Your task to perform on an android device: install app "Etsy: Buy & Sell Unique Items" Image 0: 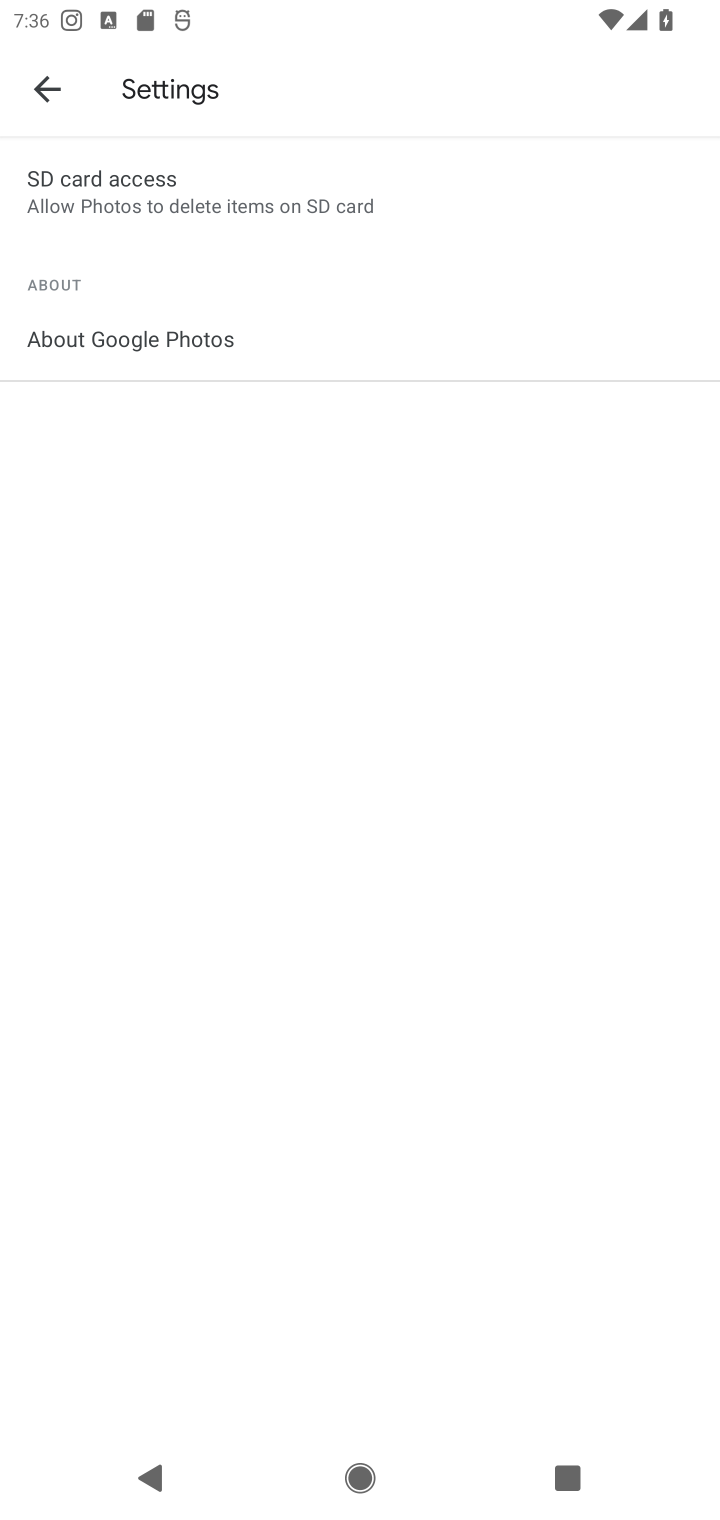
Step 0: press home button
Your task to perform on an android device: install app "Etsy: Buy & Sell Unique Items" Image 1: 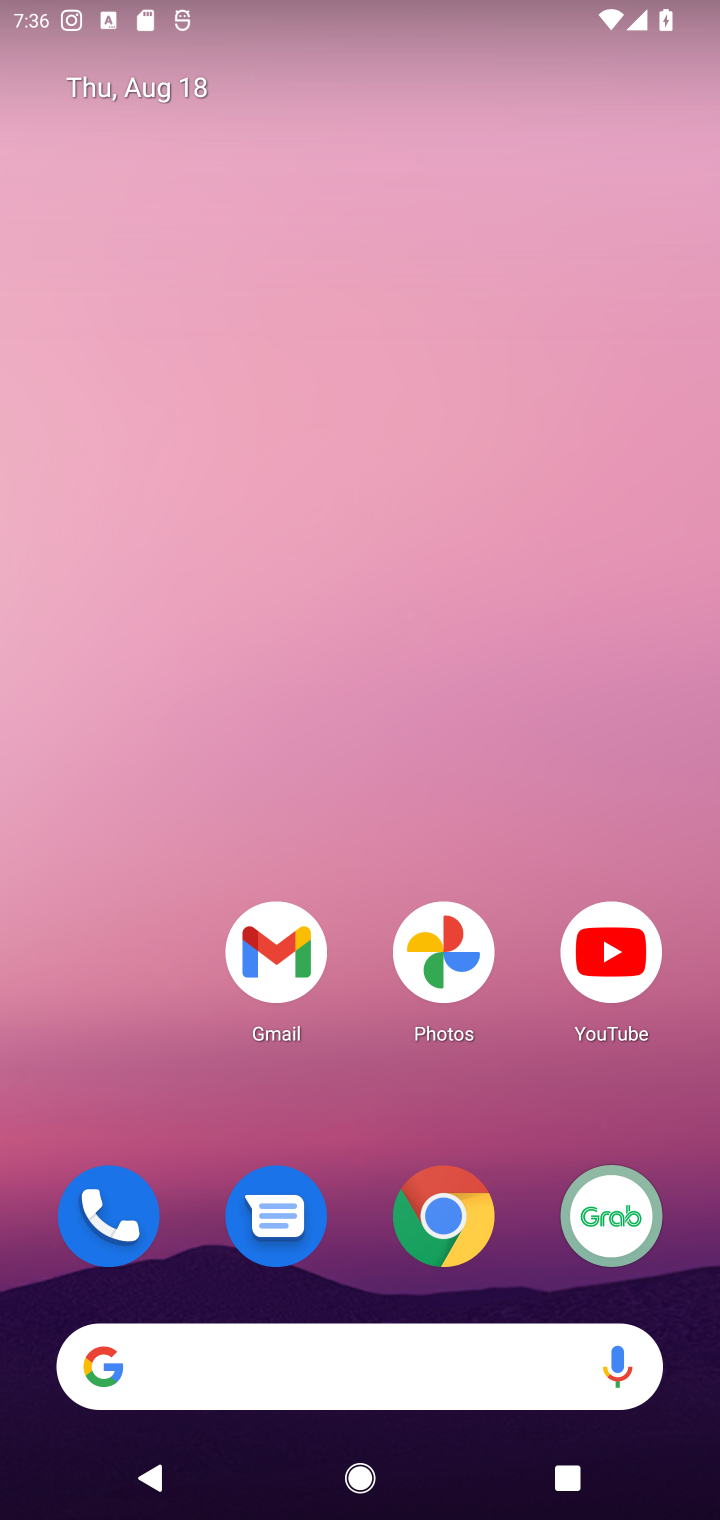
Step 1: drag from (418, 982) to (435, 311)
Your task to perform on an android device: install app "Etsy: Buy & Sell Unique Items" Image 2: 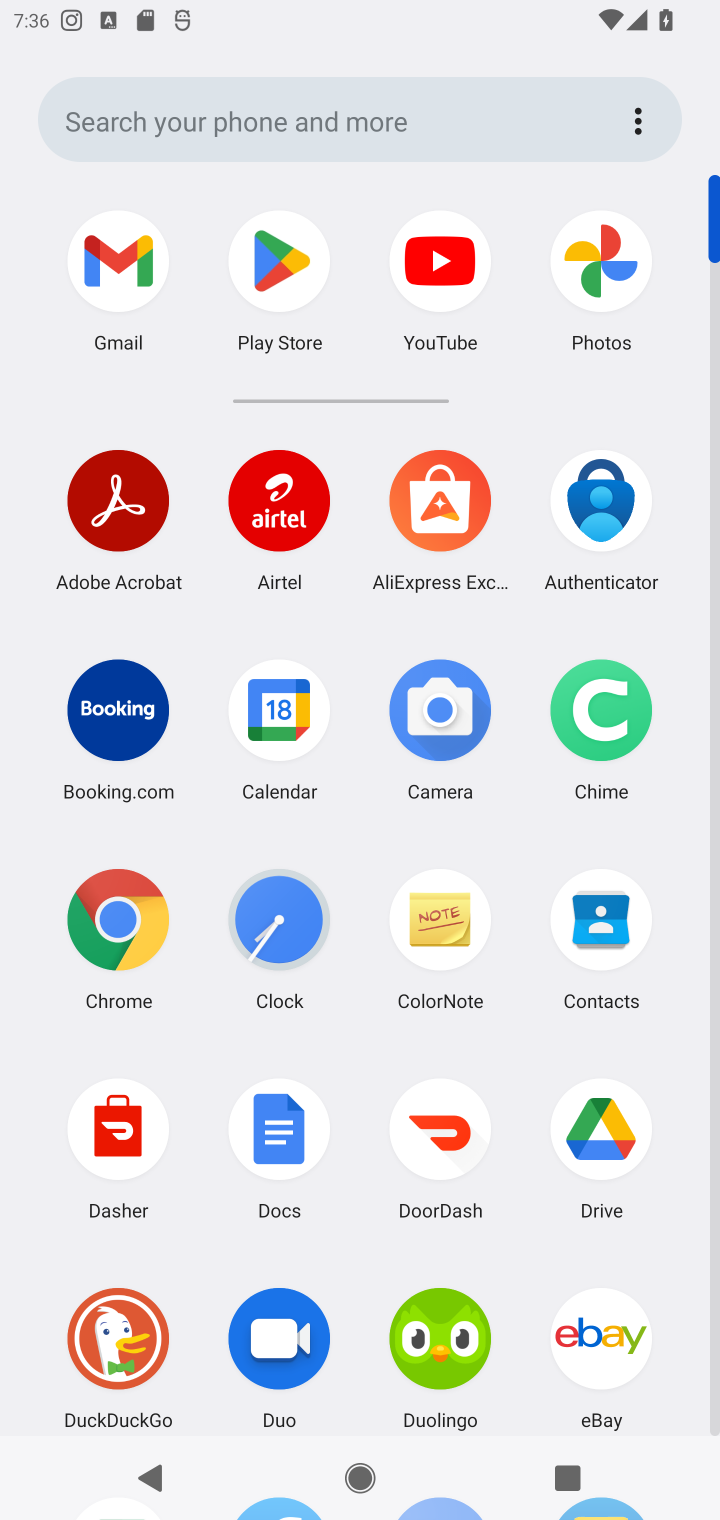
Step 2: click (288, 265)
Your task to perform on an android device: install app "Etsy: Buy & Sell Unique Items" Image 3: 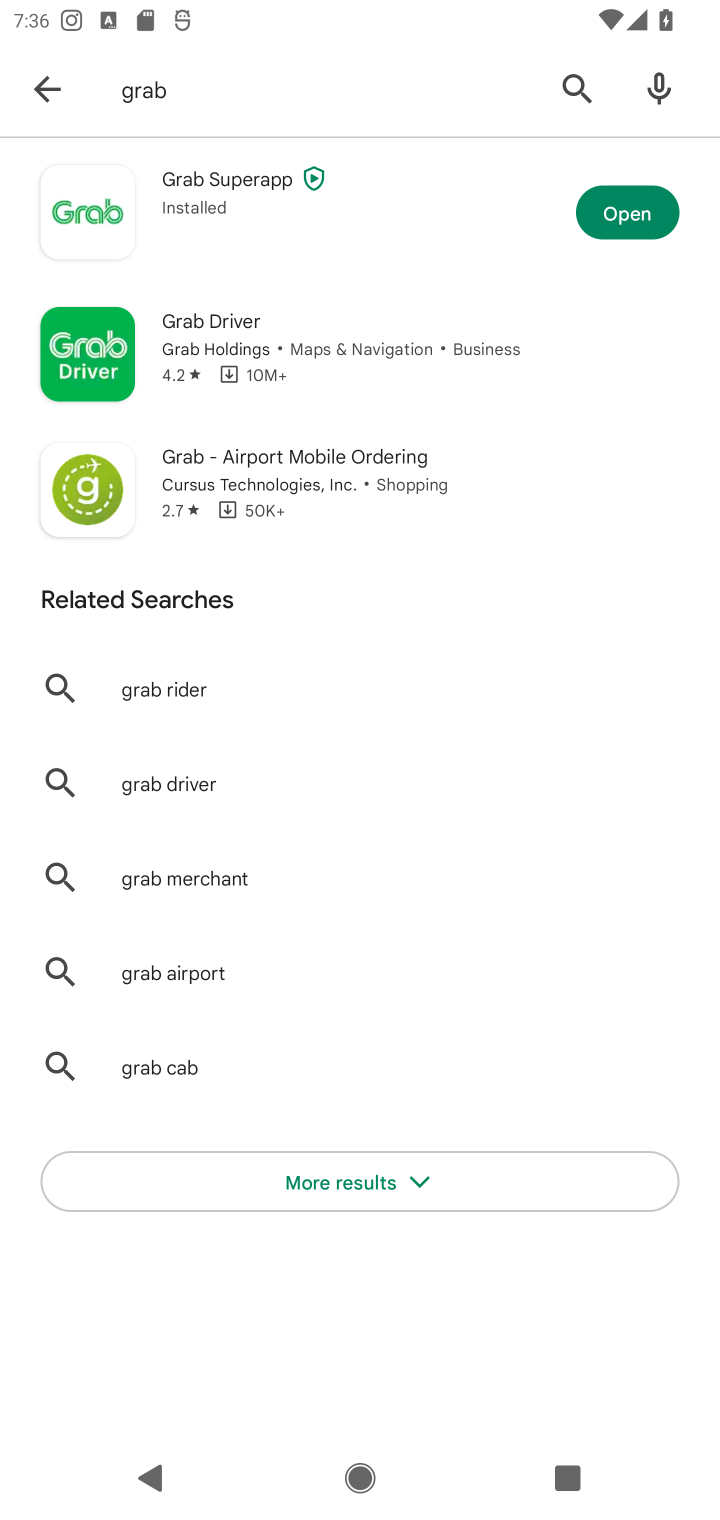
Step 3: click (599, 85)
Your task to perform on an android device: install app "Etsy: Buy & Sell Unique Items" Image 4: 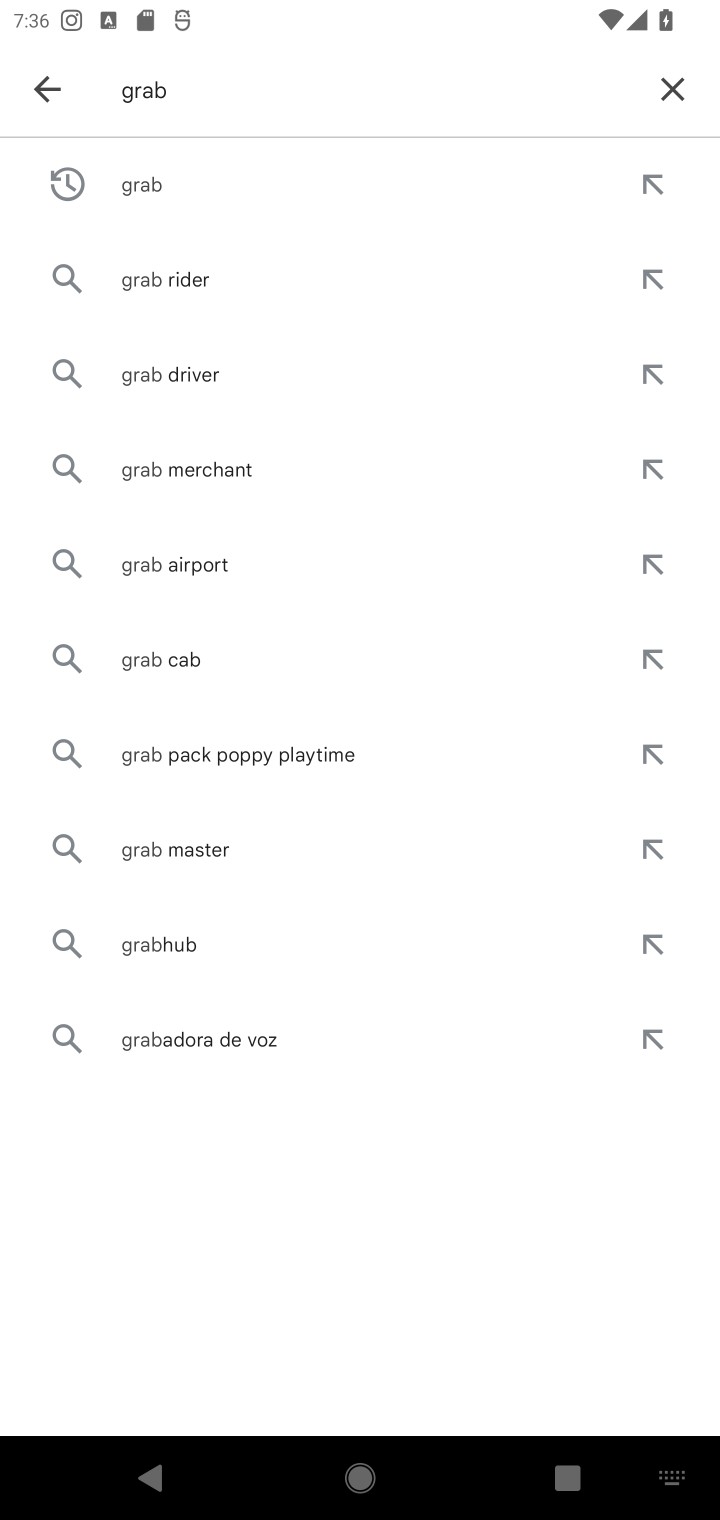
Step 4: click (655, 82)
Your task to perform on an android device: install app "Etsy: Buy & Sell Unique Items" Image 5: 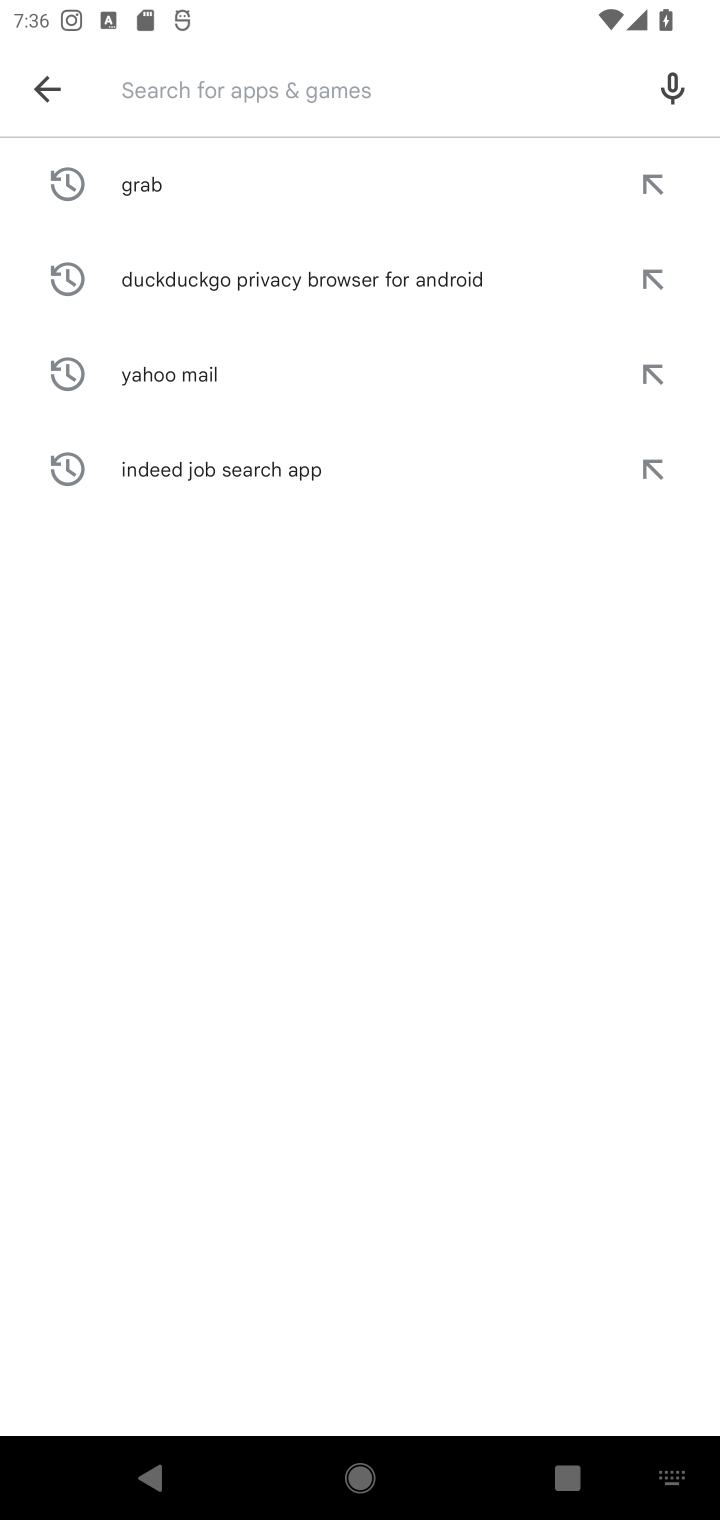
Step 5: type "Etsy: Buy & Sell Unique Items"
Your task to perform on an android device: install app "Etsy: Buy & Sell Unique Items" Image 6: 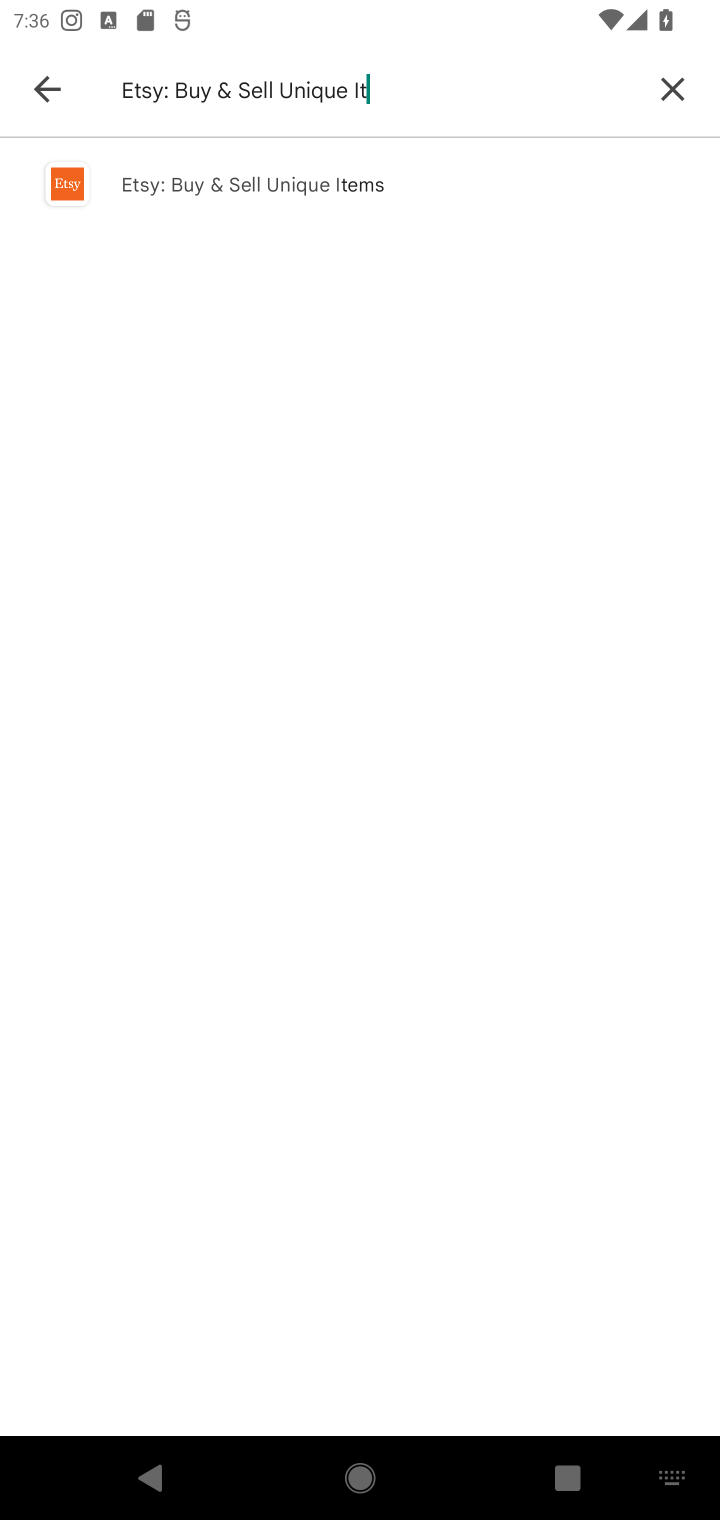
Step 6: type ""
Your task to perform on an android device: install app "Etsy: Buy & Sell Unique Items" Image 7: 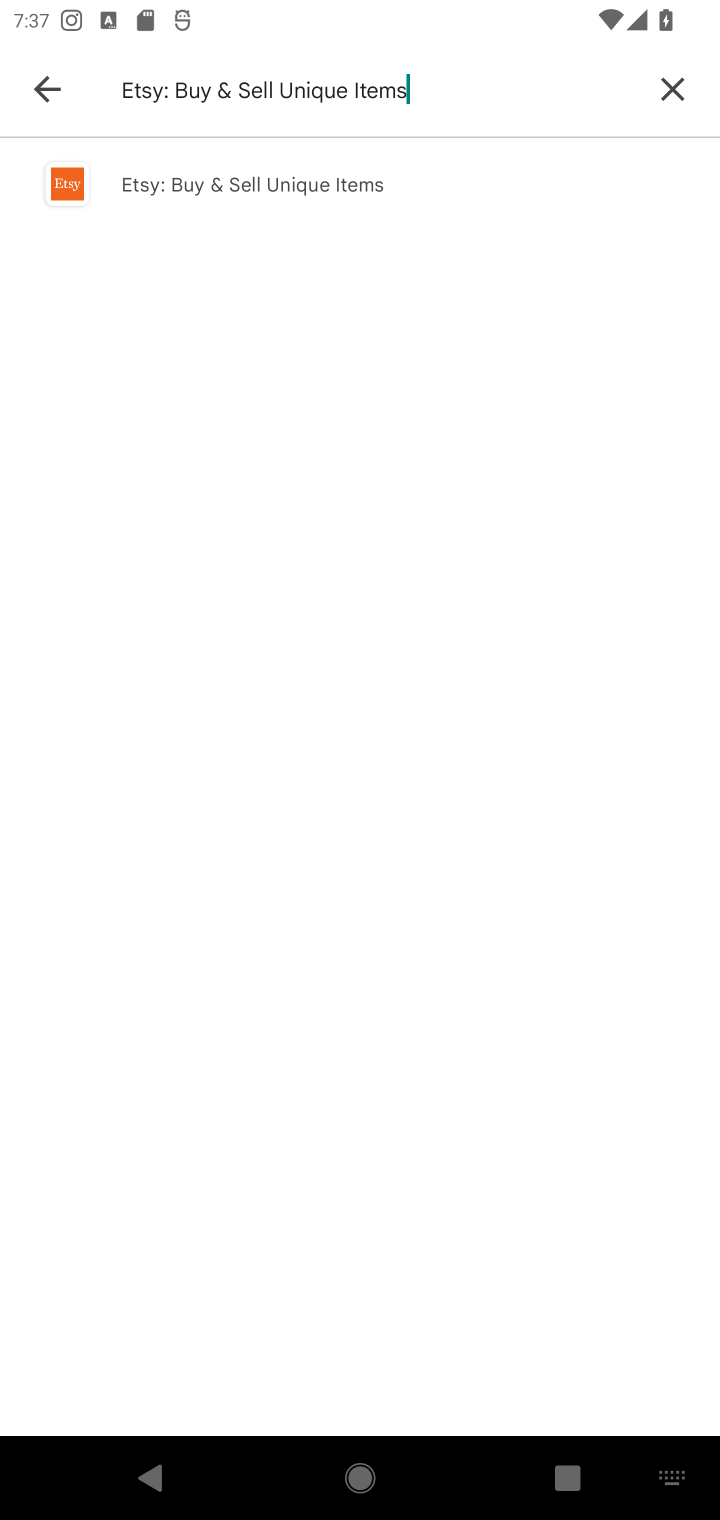
Step 7: click (247, 196)
Your task to perform on an android device: install app "Etsy: Buy & Sell Unique Items" Image 8: 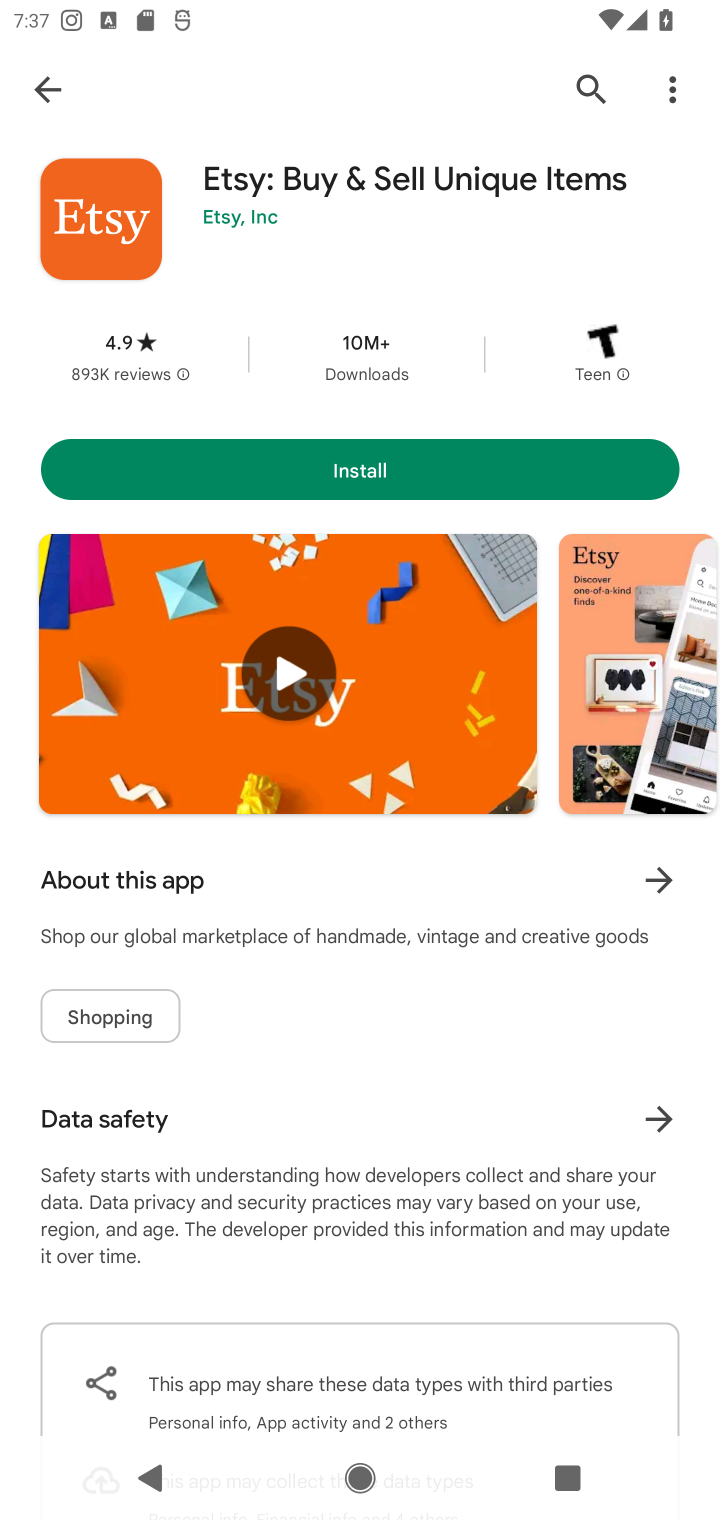
Step 8: click (395, 464)
Your task to perform on an android device: install app "Etsy: Buy & Sell Unique Items" Image 9: 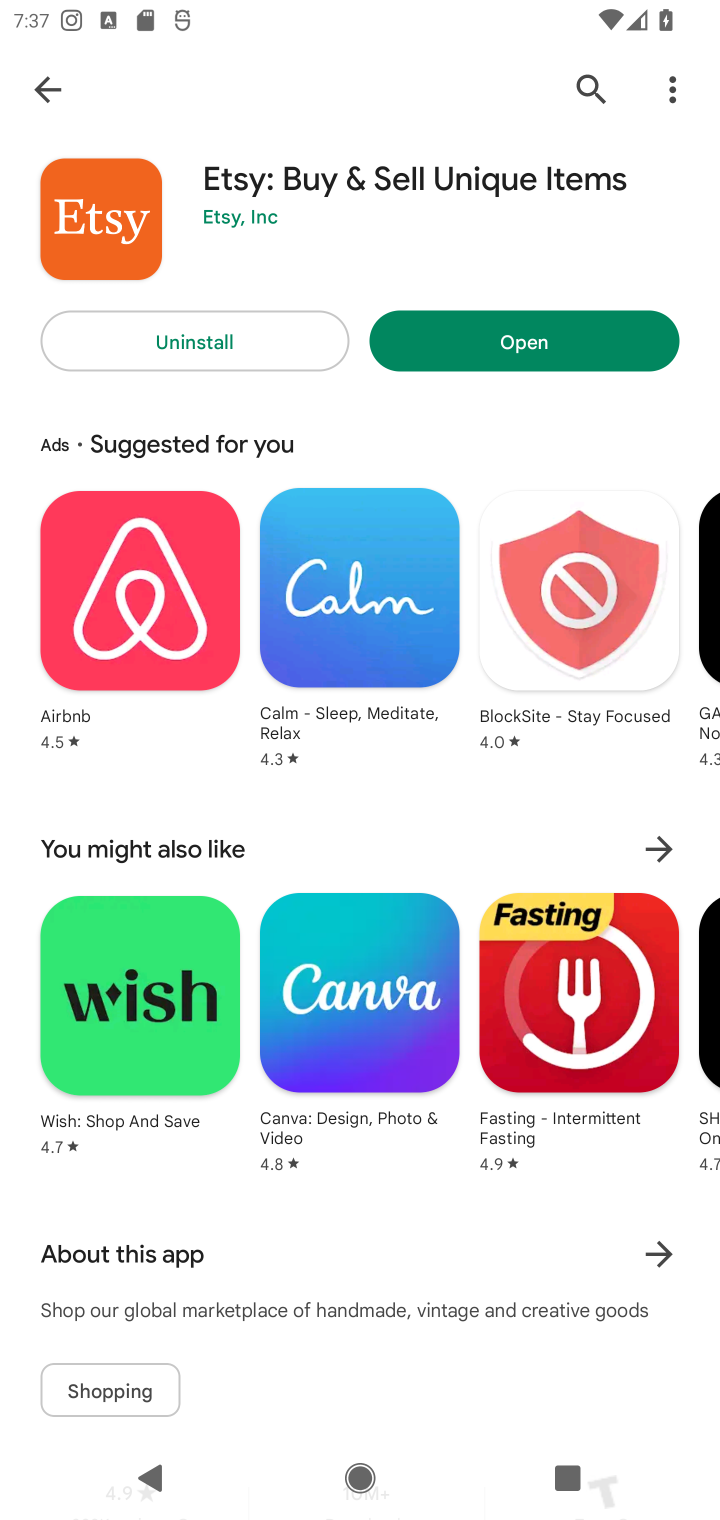
Step 9: task complete